Your task to perform on an android device: open app "ColorNote Notepad Notes" (install if not already installed) Image 0: 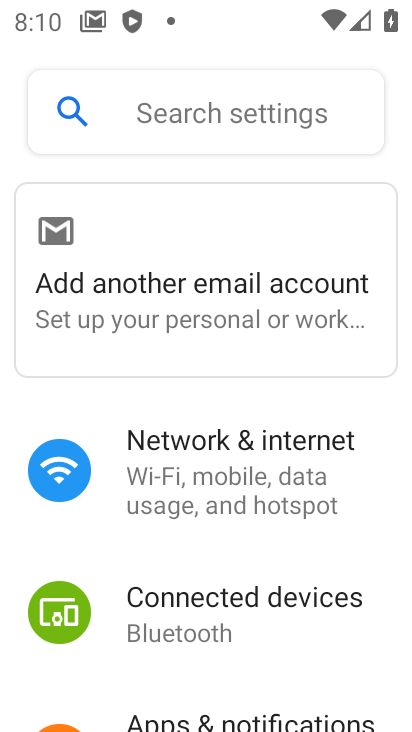
Step 0: press home button
Your task to perform on an android device: open app "ColorNote Notepad Notes" (install if not already installed) Image 1: 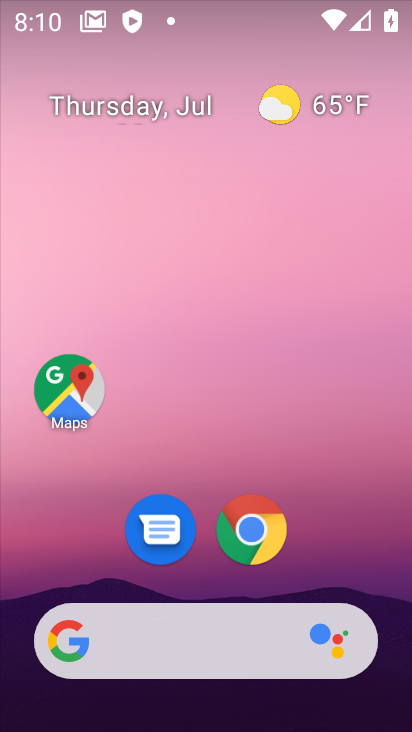
Step 1: drag from (326, 550) to (310, 15)
Your task to perform on an android device: open app "ColorNote Notepad Notes" (install if not already installed) Image 2: 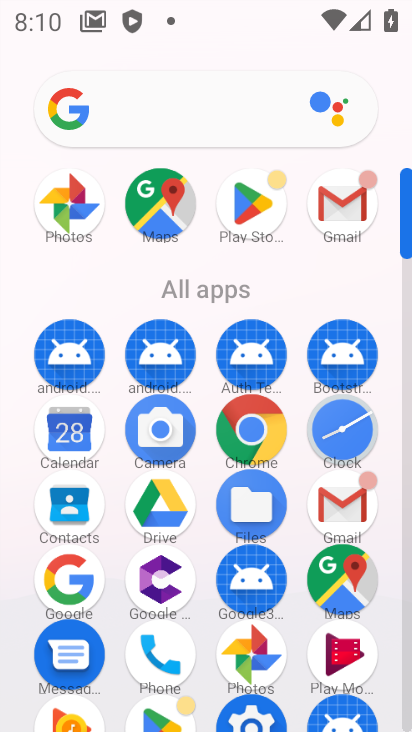
Step 2: click (242, 212)
Your task to perform on an android device: open app "ColorNote Notepad Notes" (install if not already installed) Image 3: 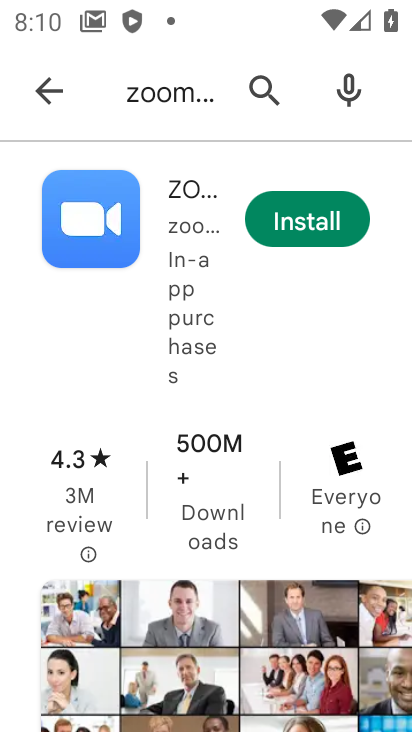
Step 3: click (255, 93)
Your task to perform on an android device: open app "ColorNote Notepad Notes" (install if not already installed) Image 4: 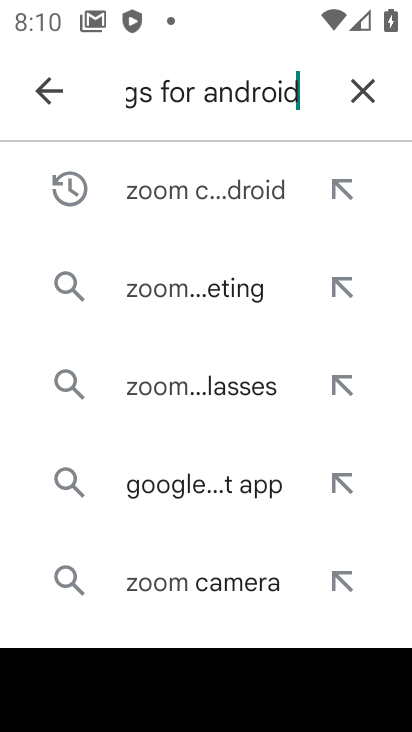
Step 4: click (348, 97)
Your task to perform on an android device: open app "ColorNote Notepad Notes" (install if not already installed) Image 5: 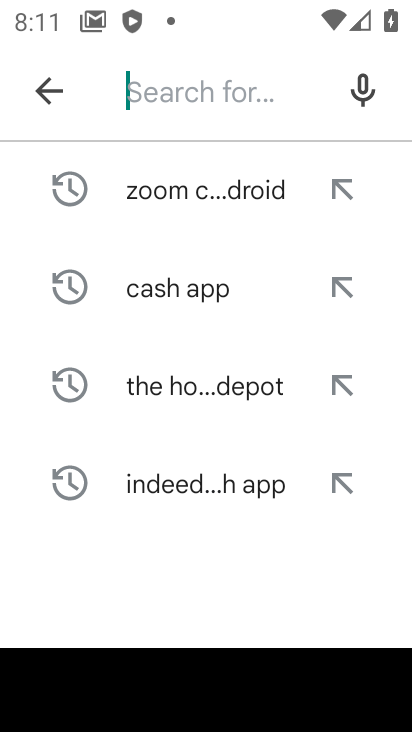
Step 5: click (173, 97)
Your task to perform on an android device: open app "ColorNote Notepad Notes" (install if not already installed) Image 6: 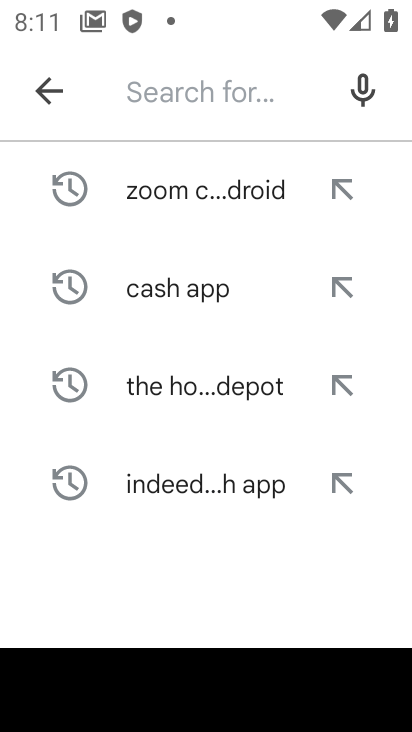
Step 6: type "ColorNote Notepad Notes"
Your task to perform on an android device: open app "ColorNote Notepad Notes" (install if not already installed) Image 7: 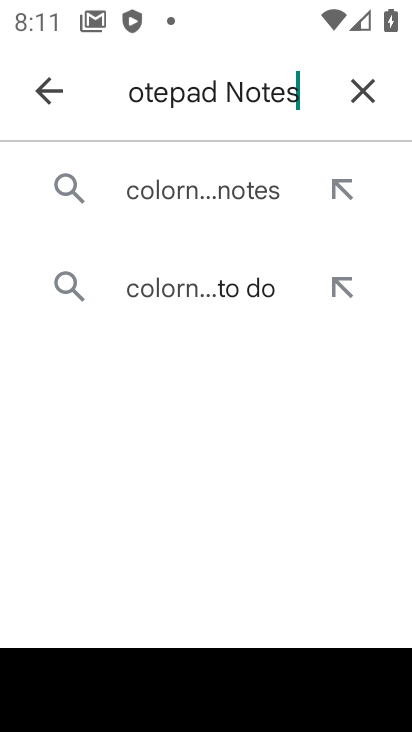
Step 7: click (194, 194)
Your task to perform on an android device: open app "ColorNote Notepad Notes" (install if not already installed) Image 8: 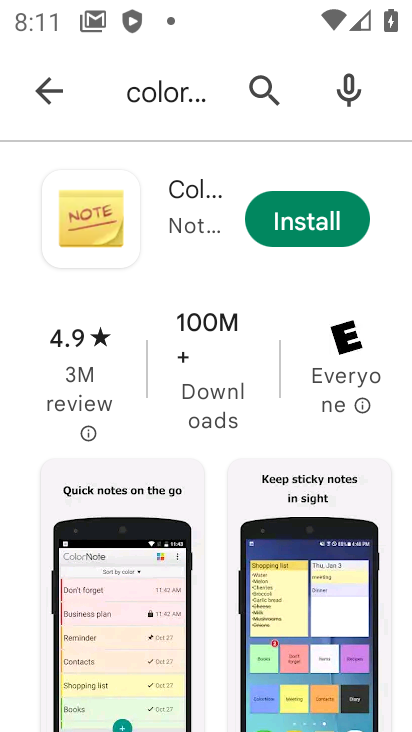
Step 8: click (311, 222)
Your task to perform on an android device: open app "ColorNote Notepad Notes" (install if not already installed) Image 9: 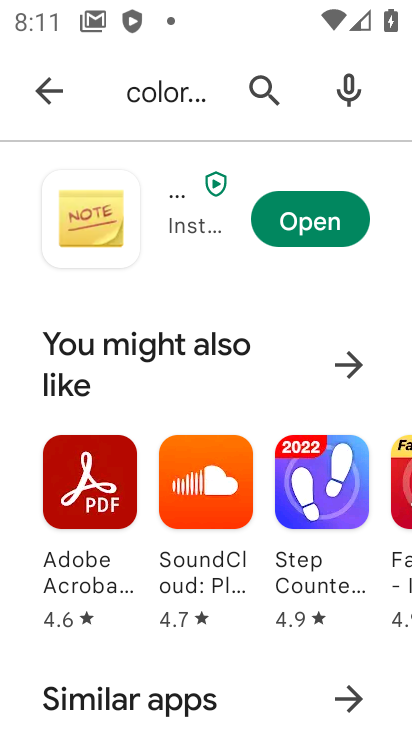
Step 9: click (302, 234)
Your task to perform on an android device: open app "ColorNote Notepad Notes" (install if not already installed) Image 10: 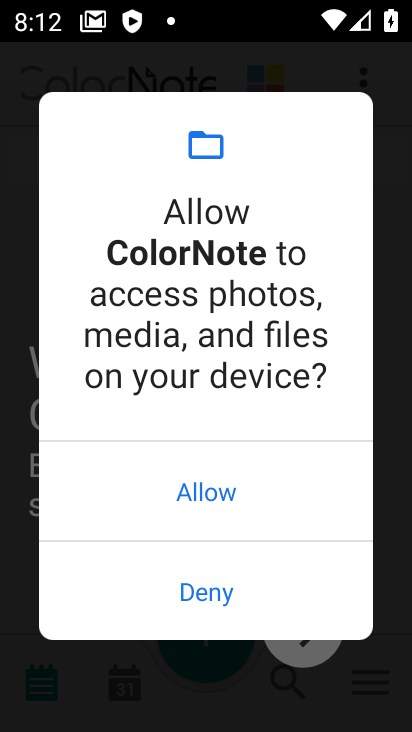
Step 10: task complete